Your task to perform on an android device: Open Yahoo.com Image 0: 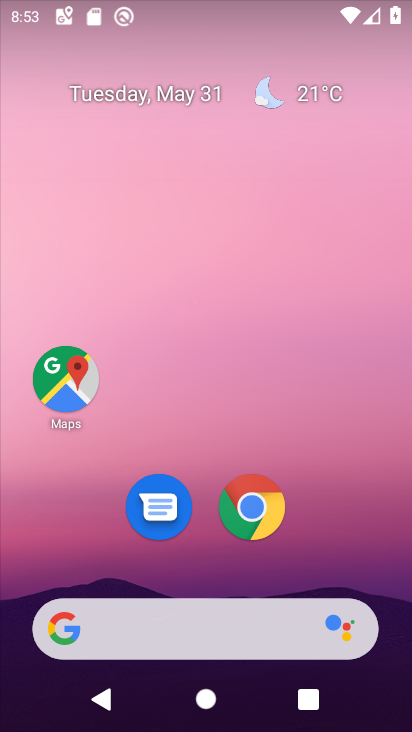
Step 0: drag from (264, 684) to (158, 48)
Your task to perform on an android device: Open Yahoo.com Image 1: 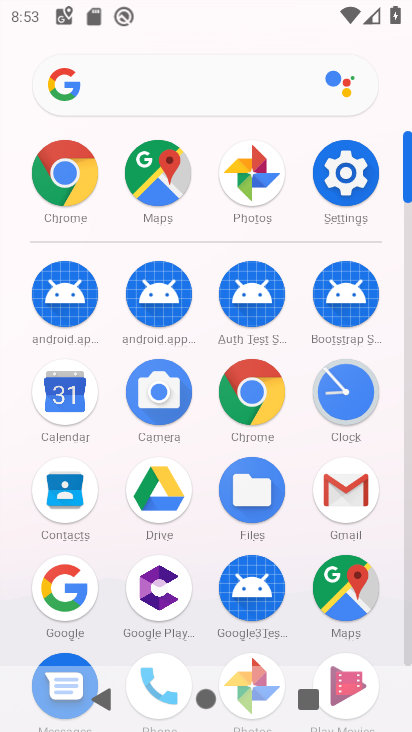
Step 1: click (243, 398)
Your task to perform on an android device: Open Yahoo.com Image 2: 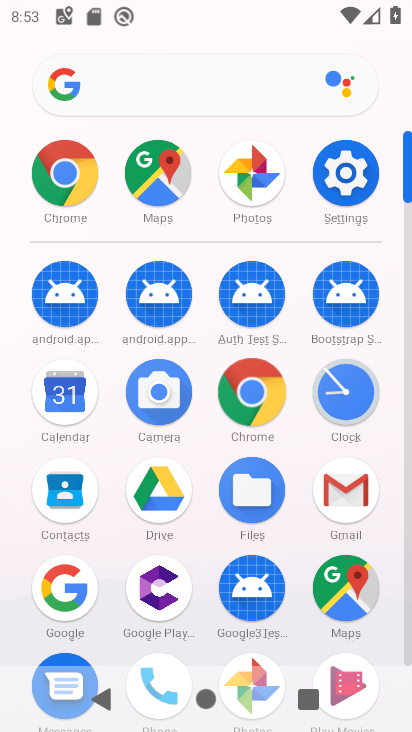
Step 2: click (243, 398)
Your task to perform on an android device: Open Yahoo.com Image 3: 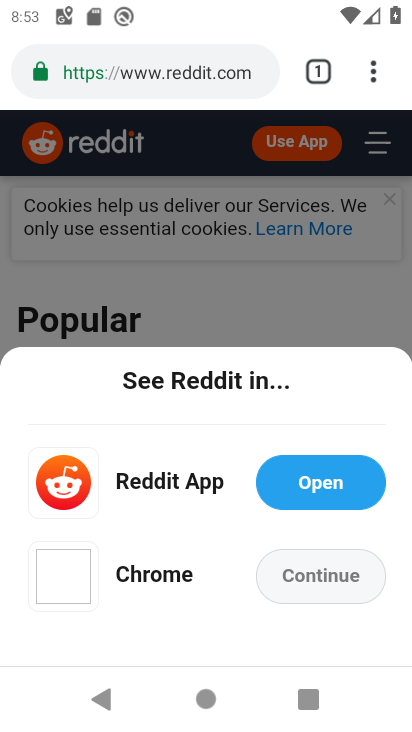
Step 3: drag from (369, 79) to (97, 161)
Your task to perform on an android device: Open Yahoo.com Image 4: 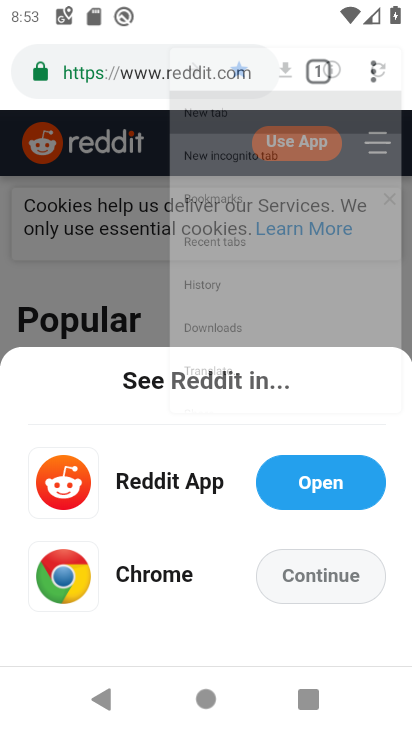
Step 4: click (97, 161)
Your task to perform on an android device: Open Yahoo.com Image 5: 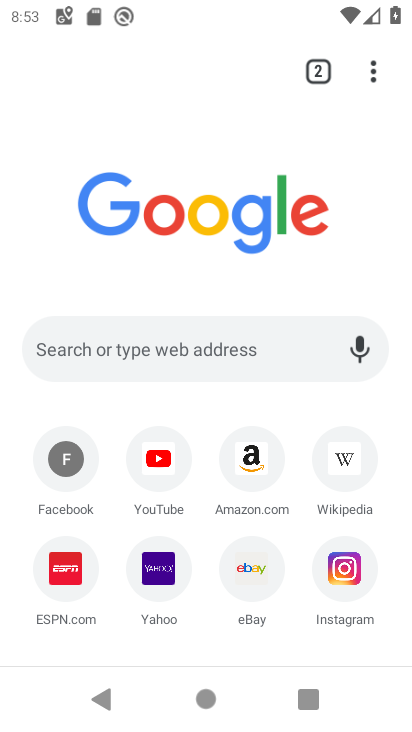
Step 5: click (158, 566)
Your task to perform on an android device: Open Yahoo.com Image 6: 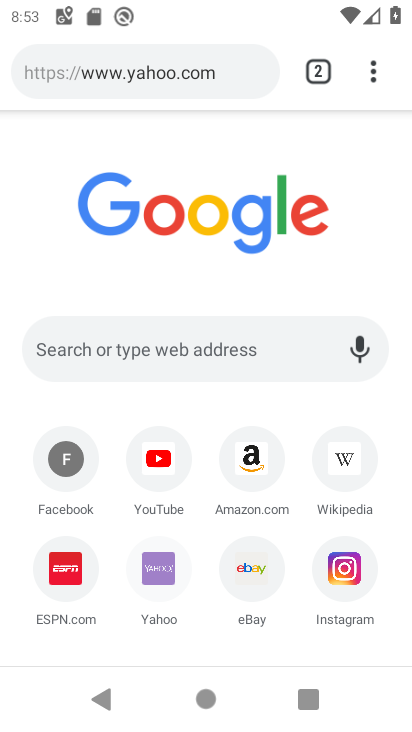
Step 6: click (156, 566)
Your task to perform on an android device: Open Yahoo.com Image 7: 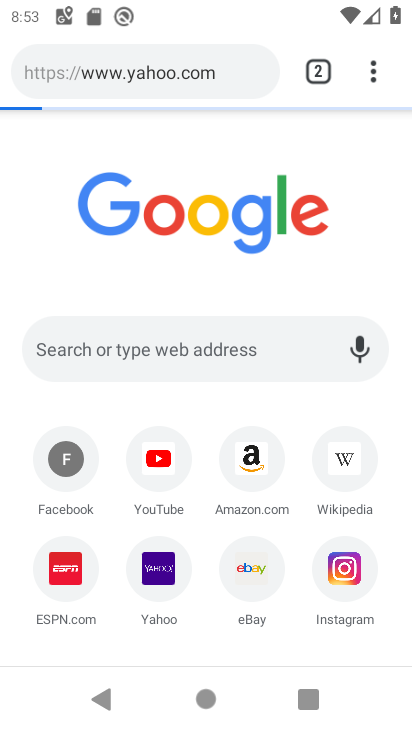
Step 7: click (156, 565)
Your task to perform on an android device: Open Yahoo.com Image 8: 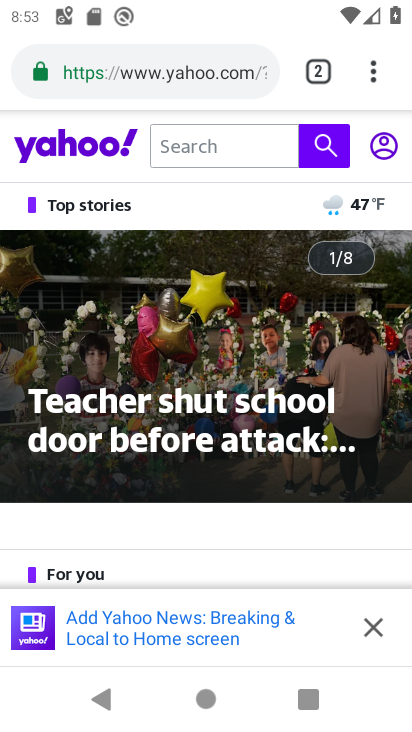
Step 8: task complete